Your task to perform on an android device: allow cookies in the chrome app Image 0: 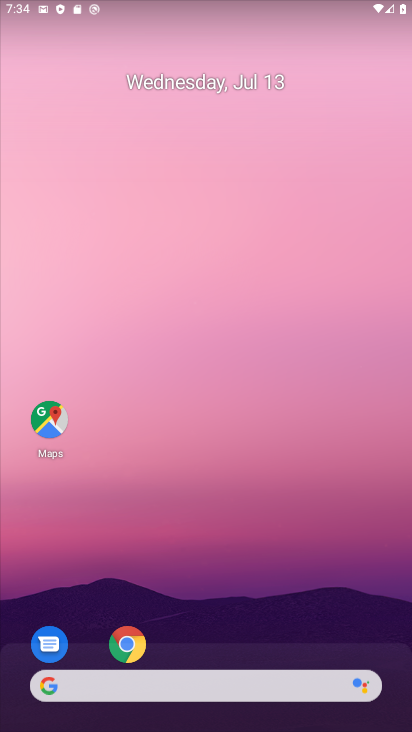
Step 0: drag from (7, 647) to (275, 126)
Your task to perform on an android device: allow cookies in the chrome app Image 1: 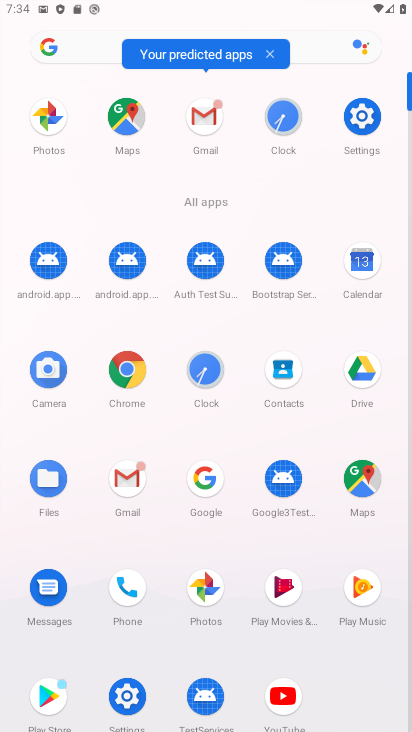
Step 1: click (107, 368)
Your task to perform on an android device: allow cookies in the chrome app Image 2: 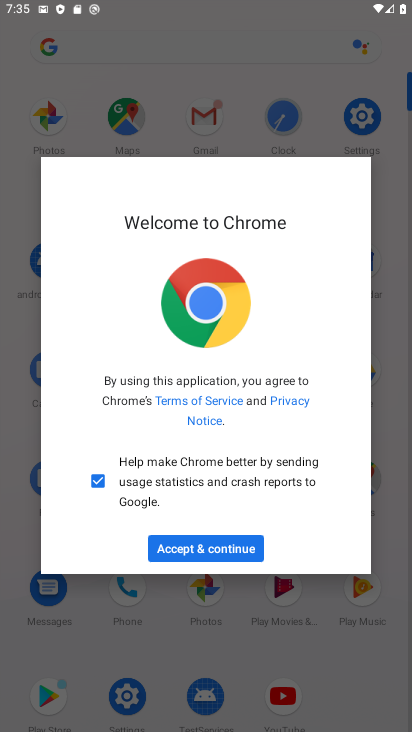
Step 2: click (237, 558)
Your task to perform on an android device: allow cookies in the chrome app Image 3: 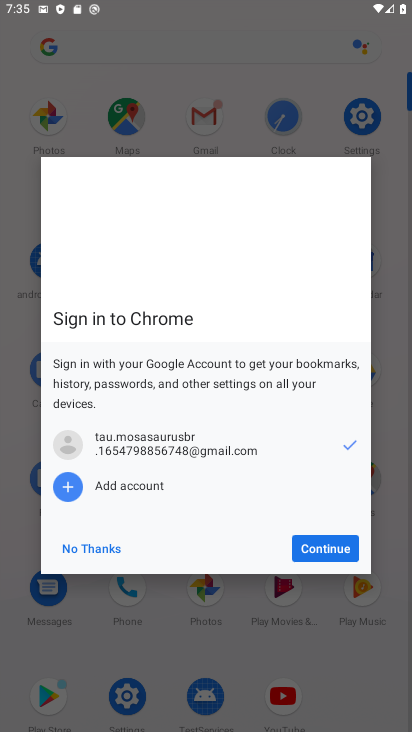
Step 3: click (73, 553)
Your task to perform on an android device: allow cookies in the chrome app Image 4: 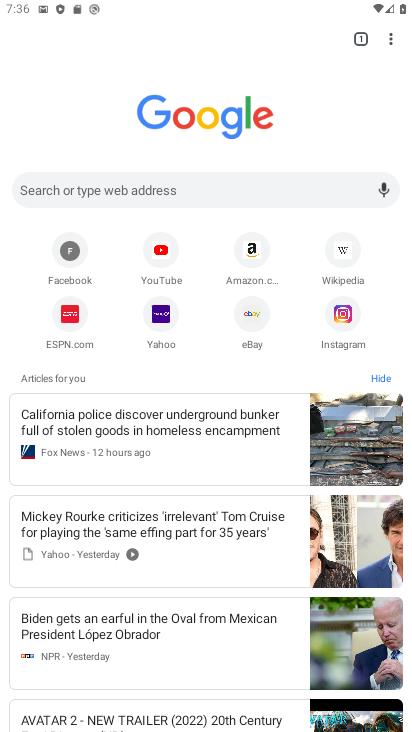
Step 4: click (390, 37)
Your task to perform on an android device: allow cookies in the chrome app Image 5: 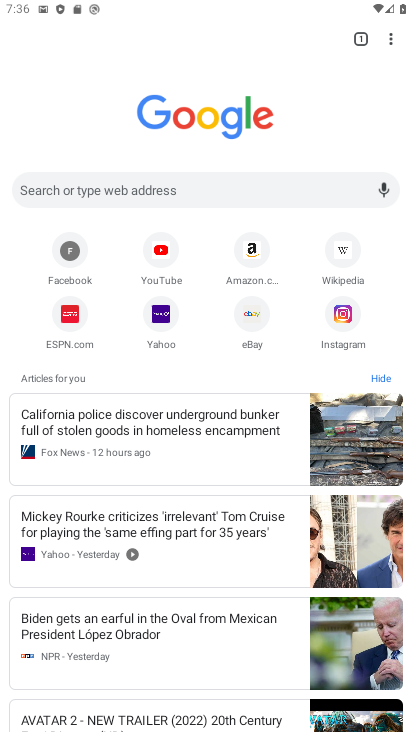
Step 5: click (390, 38)
Your task to perform on an android device: allow cookies in the chrome app Image 6: 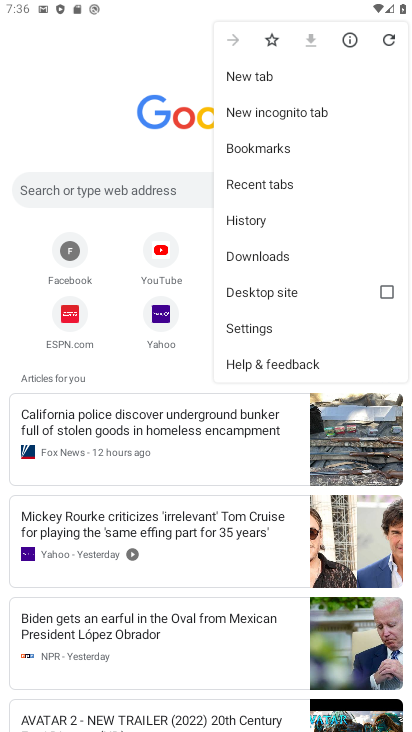
Step 6: click (268, 320)
Your task to perform on an android device: allow cookies in the chrome app Image 7: 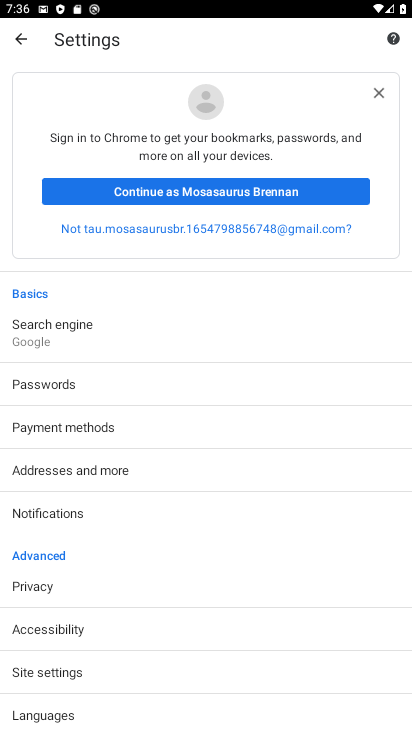
Step 7: drag from (103, 672) to (324, 130)
Your task to perform on an android device: allow cookies in the chrome app Image 8: 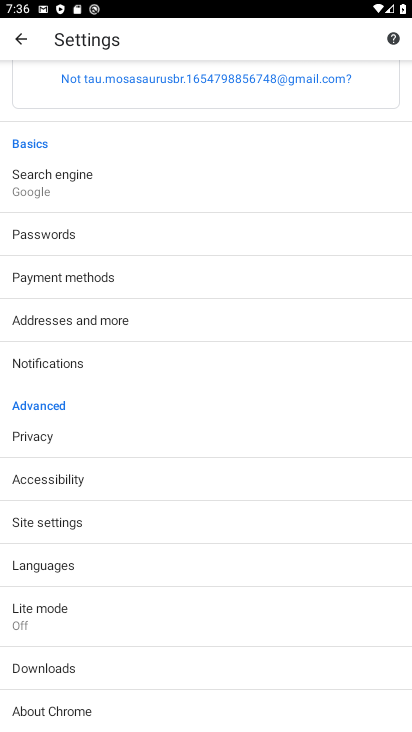
Step 8: click (56, 516)
Your task to perform on an android device: allow cookies in the chrome app Image 9: 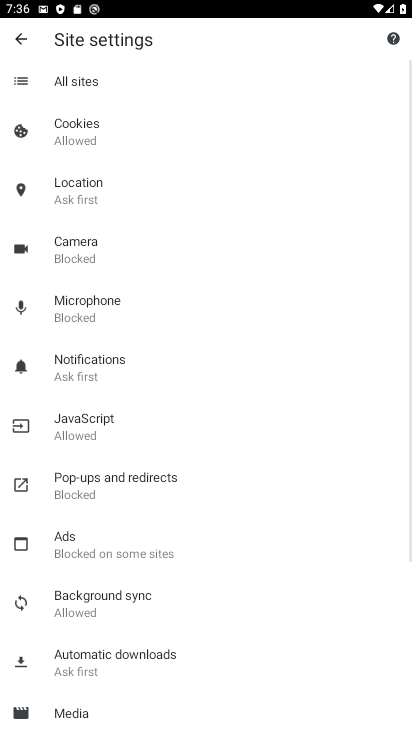
Step 9: click (93, 129)
Your task to perform on an android device: allow cookies in the chrome app Image 10: 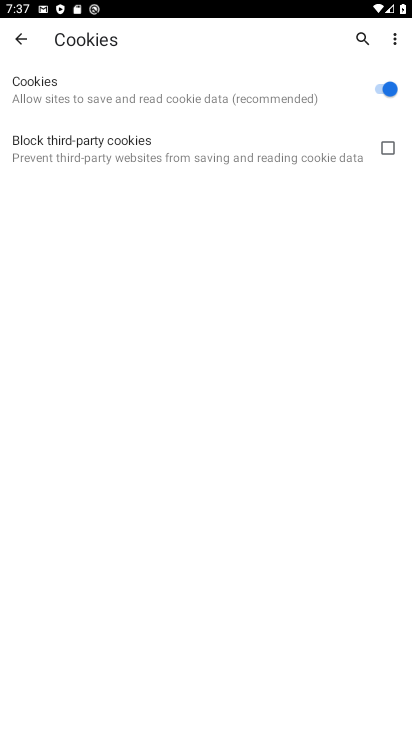
Step 10: task complete